Your task to perform on an android device: toggle notifications settings in the gmail app Image 0: 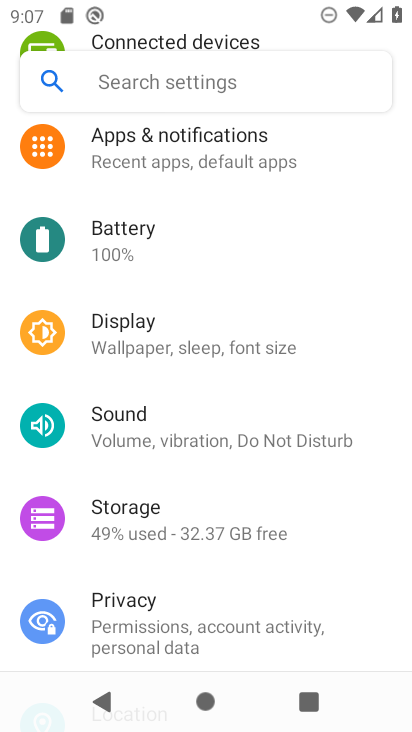
Step 0: press home button
Your task to perform on an android device: toggle notifications settings in the gmail app Image 1: 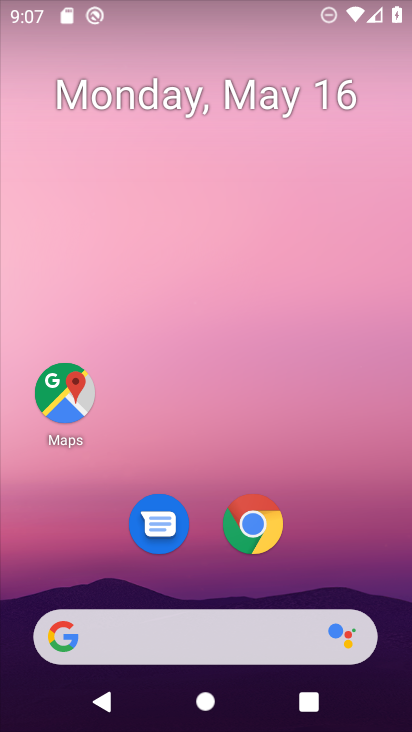
Step 1: drag from (322, 523) to (363, 81)
Your task to perform on an android device: toggle notifications settings in the gmail app Image 2: 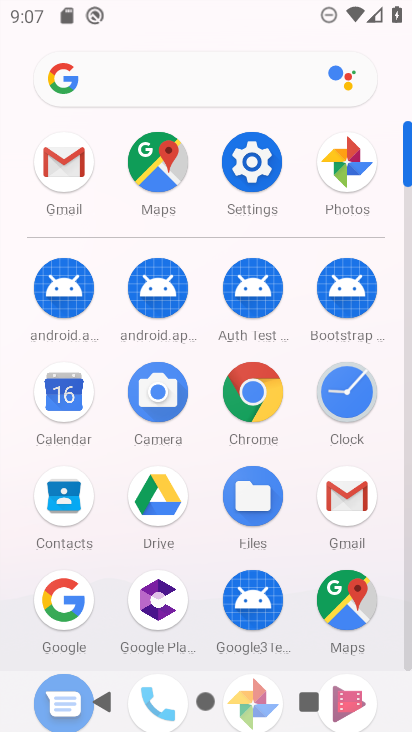
Step 2: click (77, 172)
Your task to perform on an android device: toggle notifications settings in the gmail app Image 3: 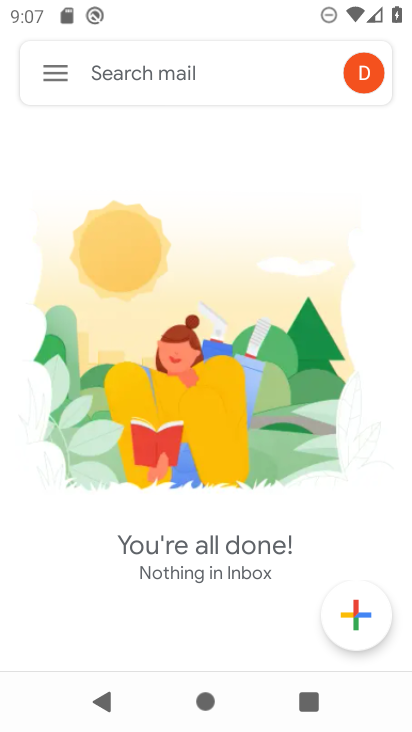
Step 3: click (52, 76)
Your task to perform on an android device: toggle notifications settings in the gmail app Image 4: 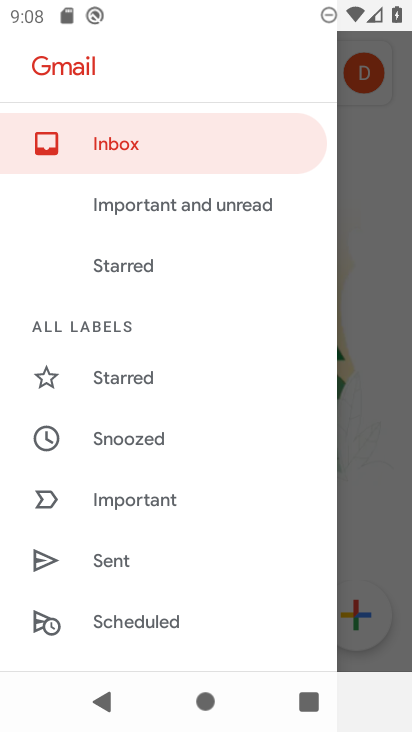
Step 4: drag from (171, 509) to (239, 152)
Your task to perform on an android device: toggle notifications settings in the gmail app Image 5: 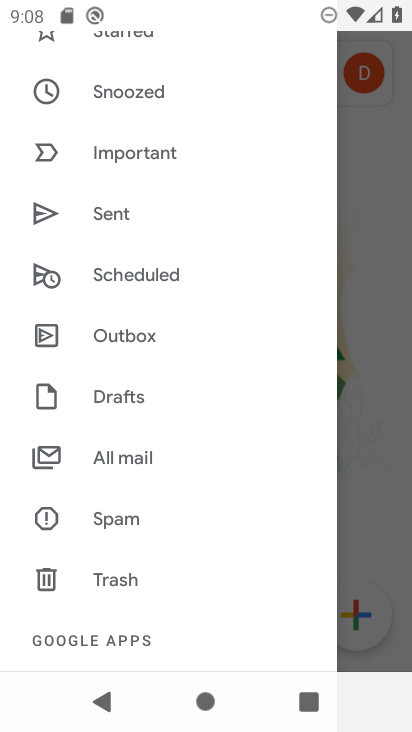
Step 5: drag from (174, 482) to (221, 207)
Your task to perform on an android device: toggle notifications settings in the gmail app Image 6: 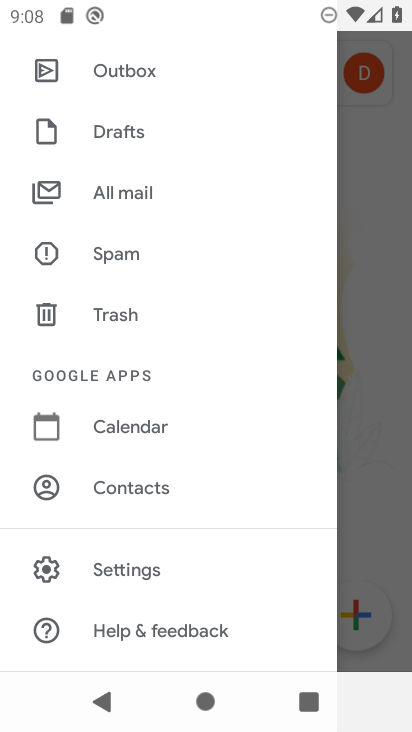
Step 6: click (121, 572)
Your task to perform on an android device: toggle notifications settings in the gmail app Image 7: 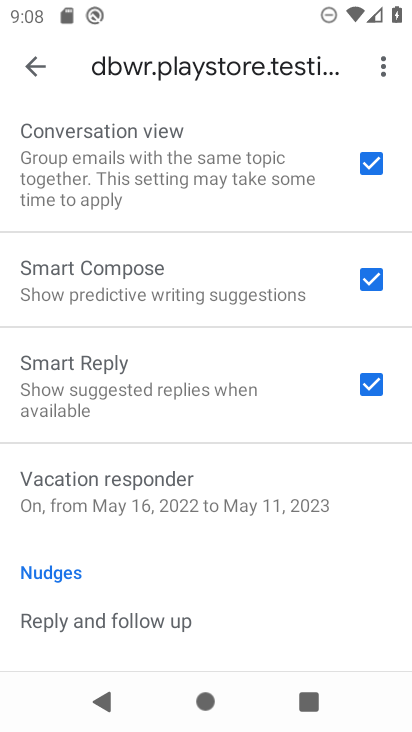
Step 7: drag from (195, 208) to (140, 601)
Your task to perform on an android device: toggle notifications settings in the gmail app Image 8: 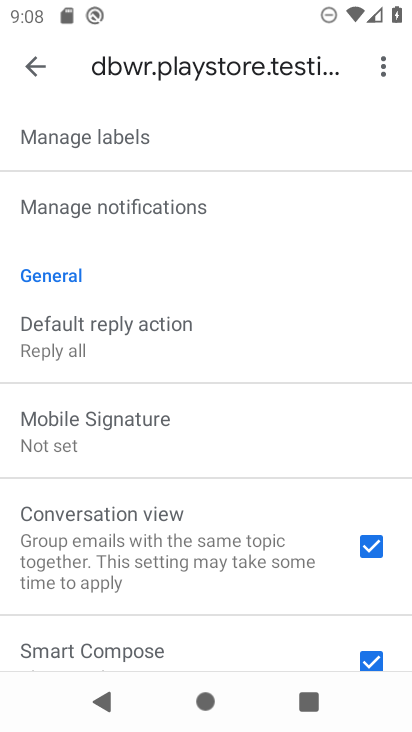
Step 8: click (191, 196)
Your task to perform on an android device: toggle notifications settings in the gmail app Image 9: 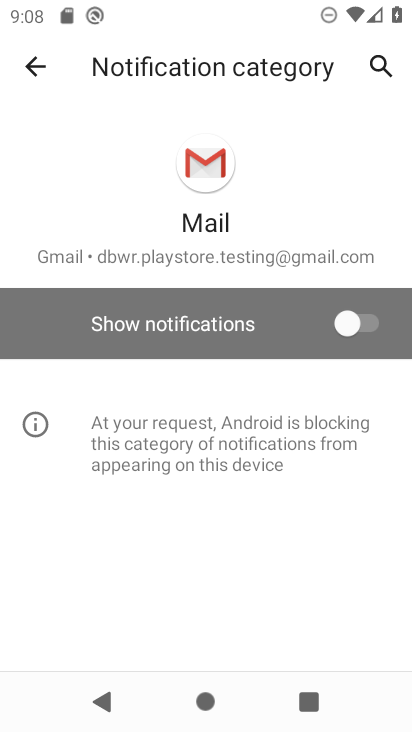
Step 9: click (352, 320)
Your task to perform on an android device: toggle notifications settings in the gmail app Image 10: 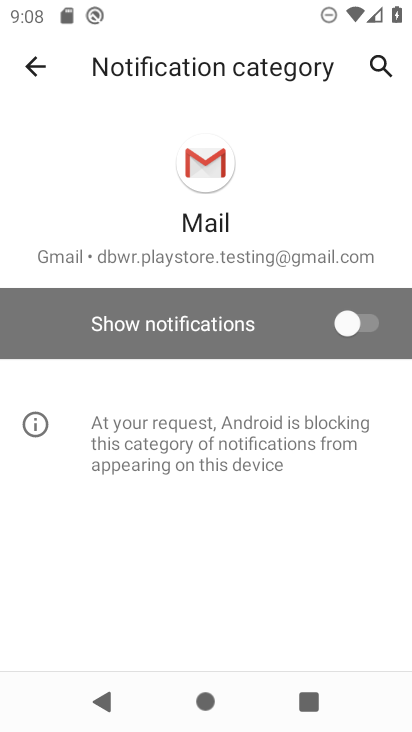
Step 10: click (357, 316)
Your task to perform on an android device: toggle notifications settings in the gmail app Image 11: 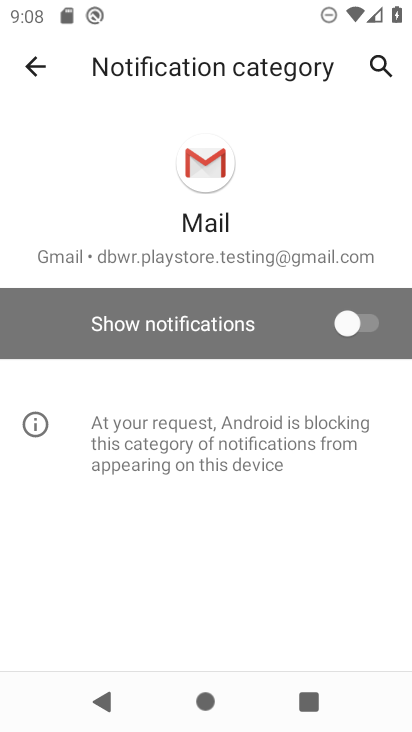
Step 11: click (39, 59)
Your task to perform on an android device: toggle notifications settings in the gmail app Image 12: 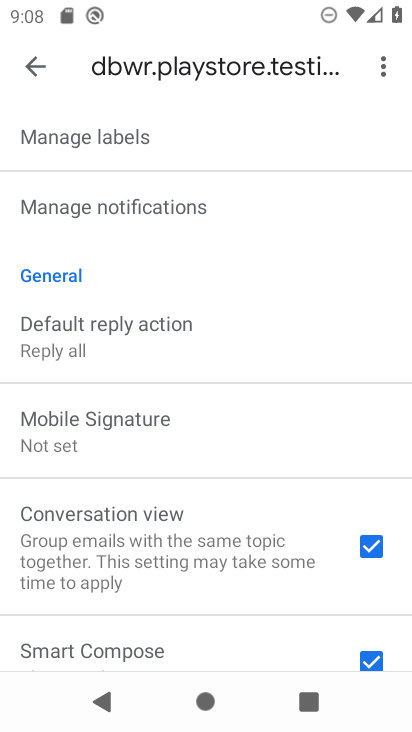
Step 12: click (30, 61)
Your task to perform on an android device: toggle notifications settings in the gmail app Image 13: 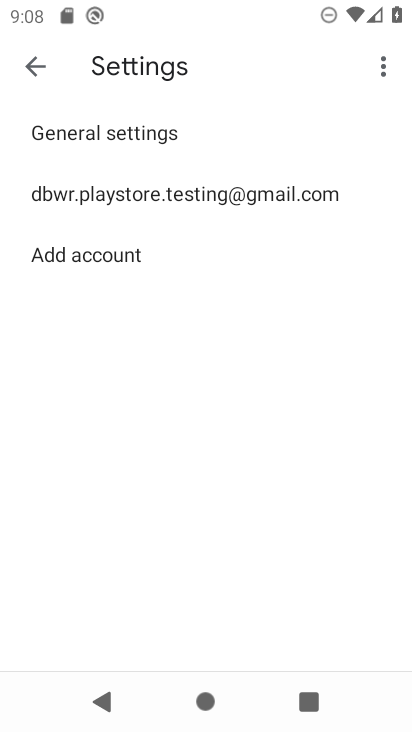
Step 13: click (97, 127)
Your task to perform on an android device: toggle notifications settings in the gmail app Image 14: 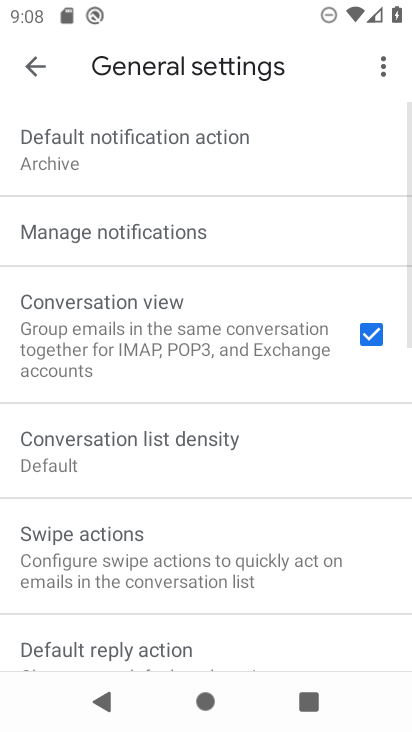
Step 14: click (170, 219)
Your task to perform on an android device: toggle notifications settings in the gmail app Image 15: 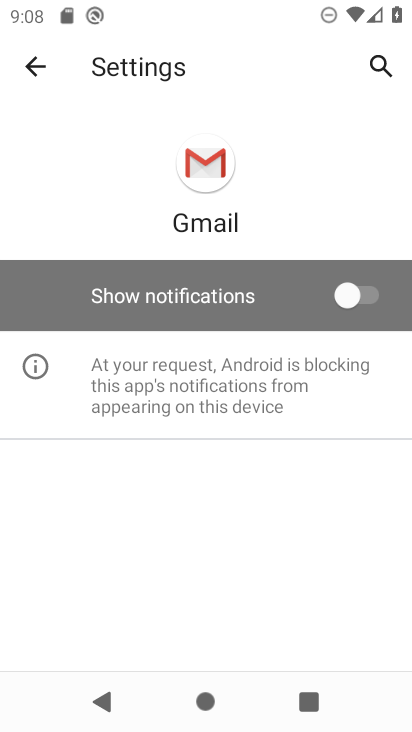
Step 15: click (366, 289)
Your task to perform on an android device: toggle notifications settings in the gmail app Image 16: 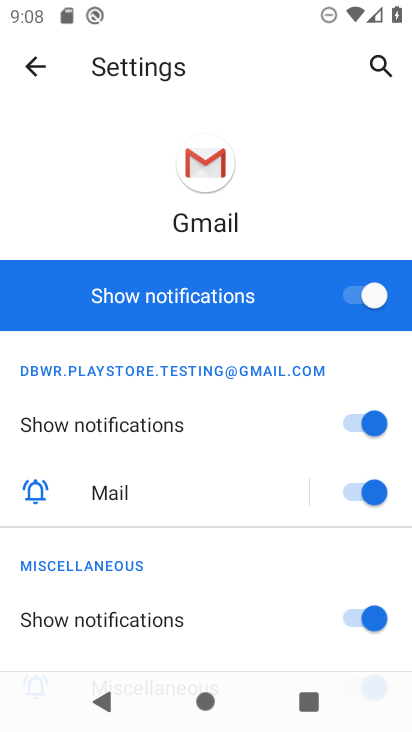
Step 16: task complete